Your task to perform on an android device: Add razer naga to the cart on costco.com Image 0: 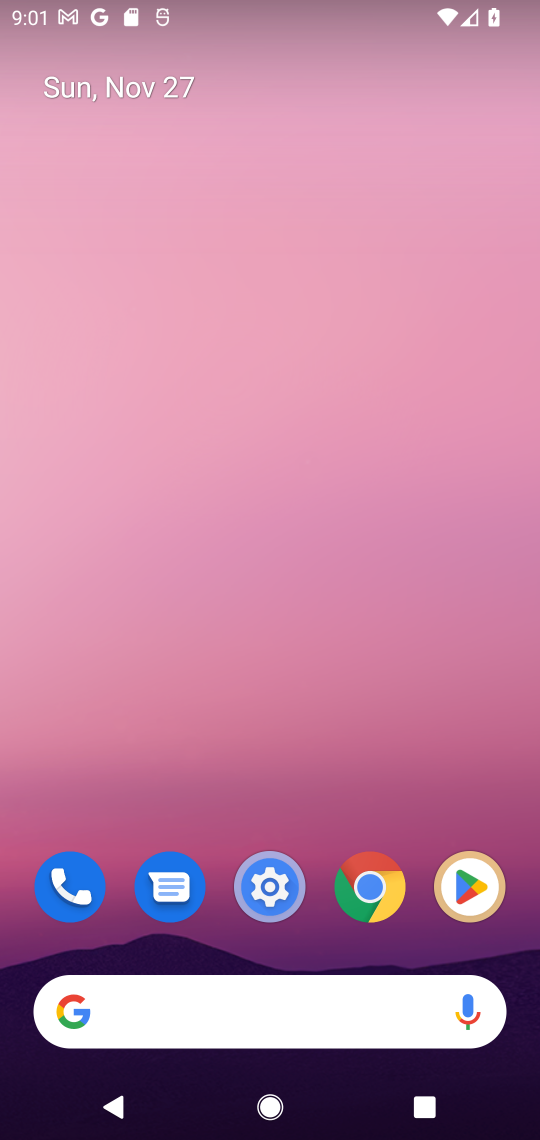
Step 0: click (214, 1007)
Your task to perform on an android device: Add razer naga to the cart on costco.com Image 1: 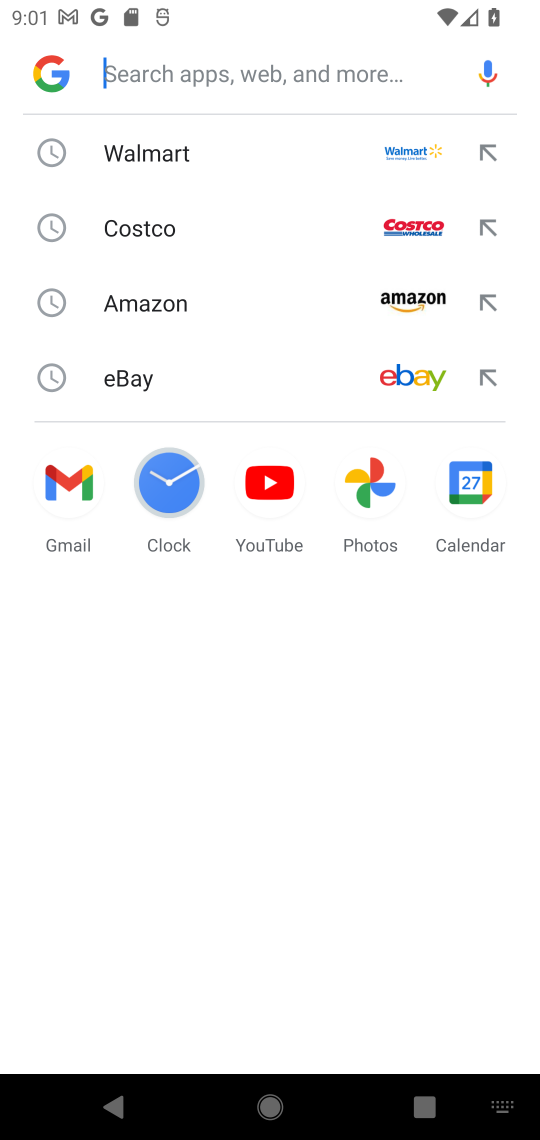
Step 1: type "costco.com"
Your task to perform on an android device: Add razer naga to the cart on costco.com Image 2: 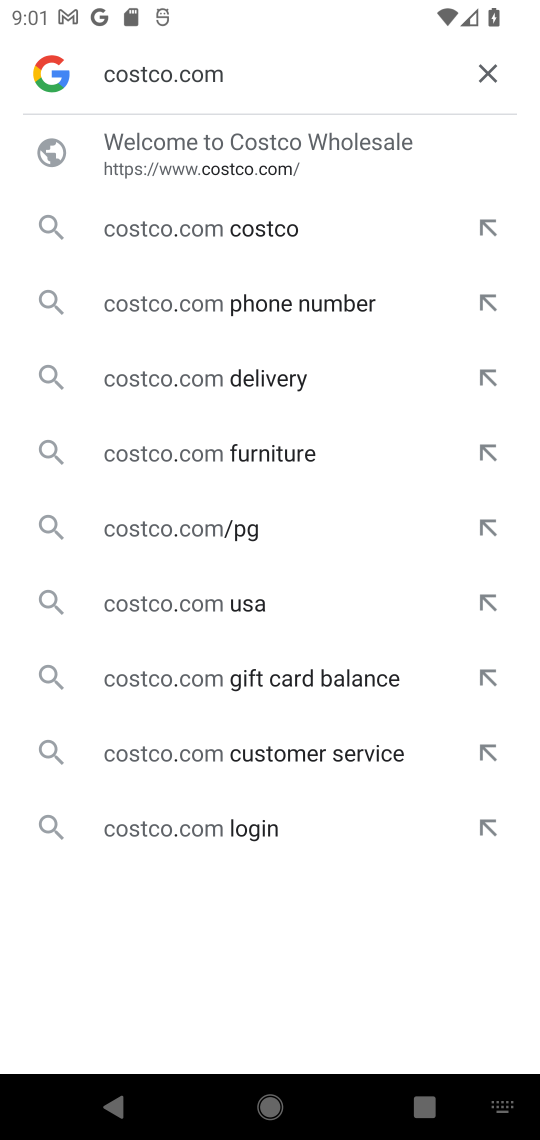
Step 2: click (187, 175)
Your task to perform on an android device: Add razer naga to the cart on costco.com Image 3: 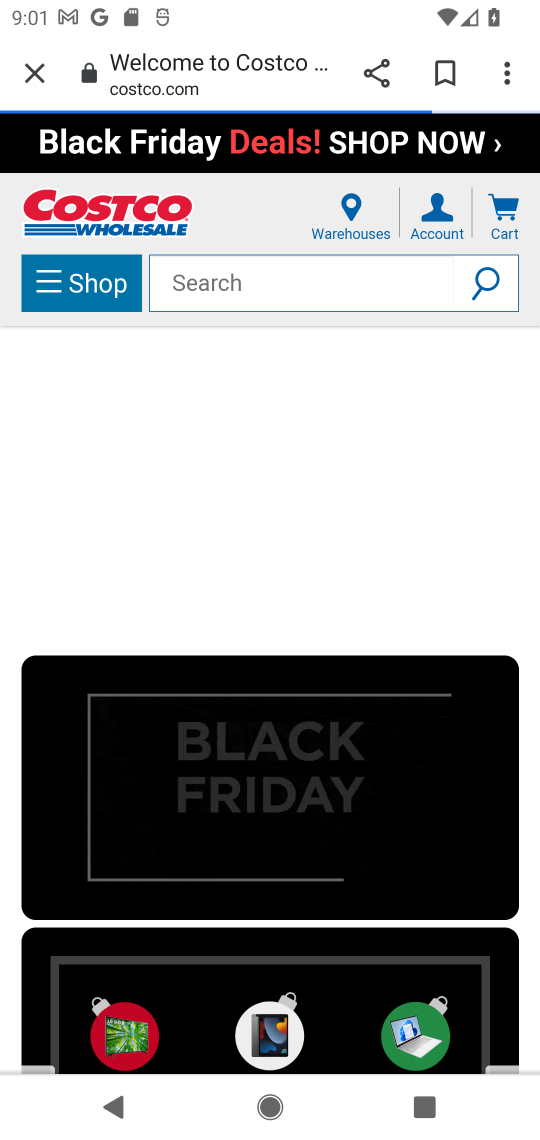
Step 3: click (327, 282)
Your task to perform on an android device: Add razer naga to the cart on costco.com Image 4: 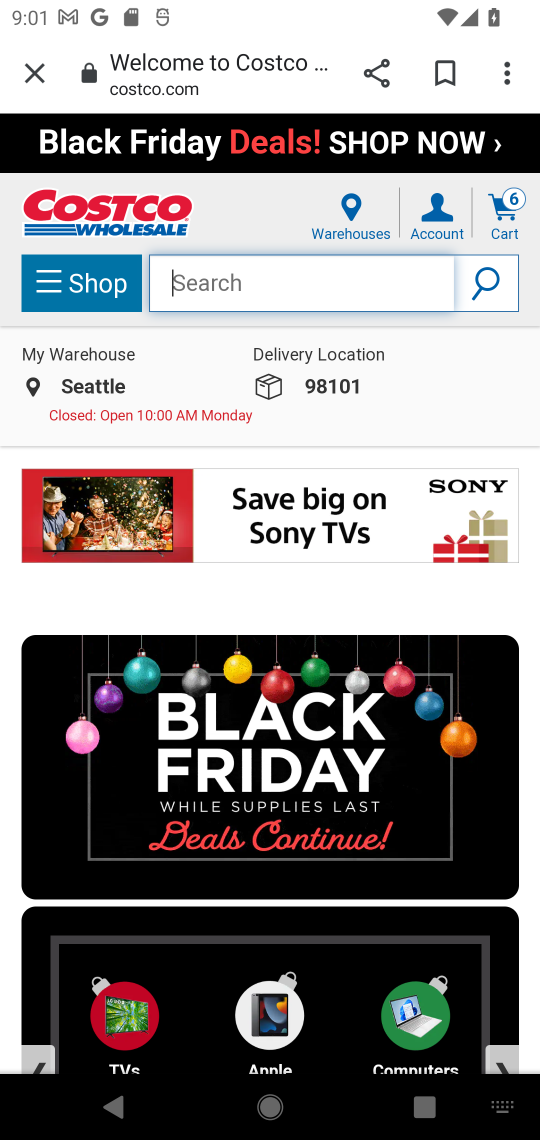
Step 4: type "razer naga"
Your task to perform on an android device: Add razer naga to the cart on costco.com Image 5: 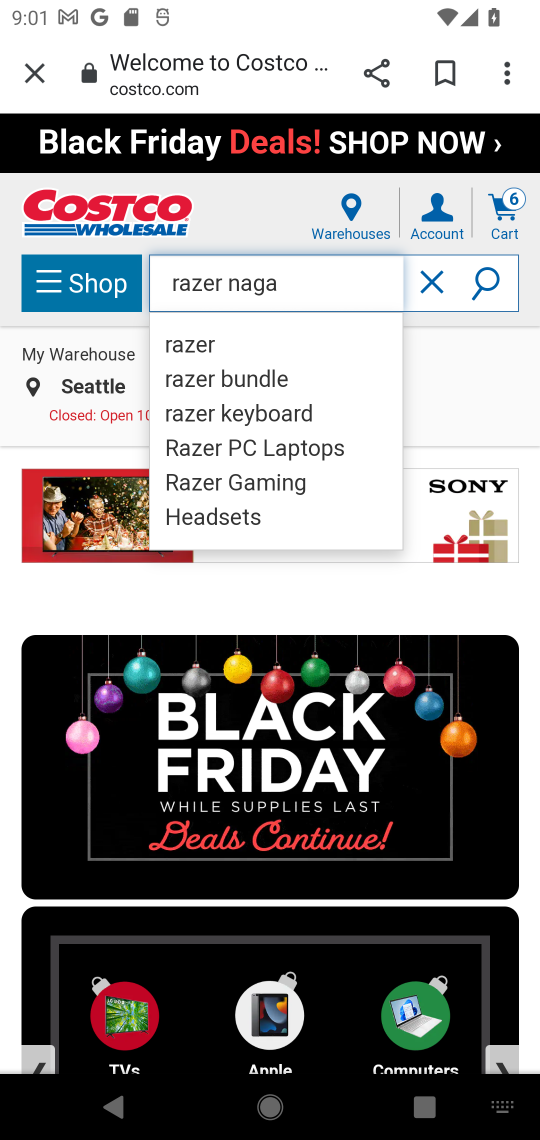
Step 5: click (485, 285)
Your task to perform on an android device: Add razer naga to the cart on costco.com Image 6: 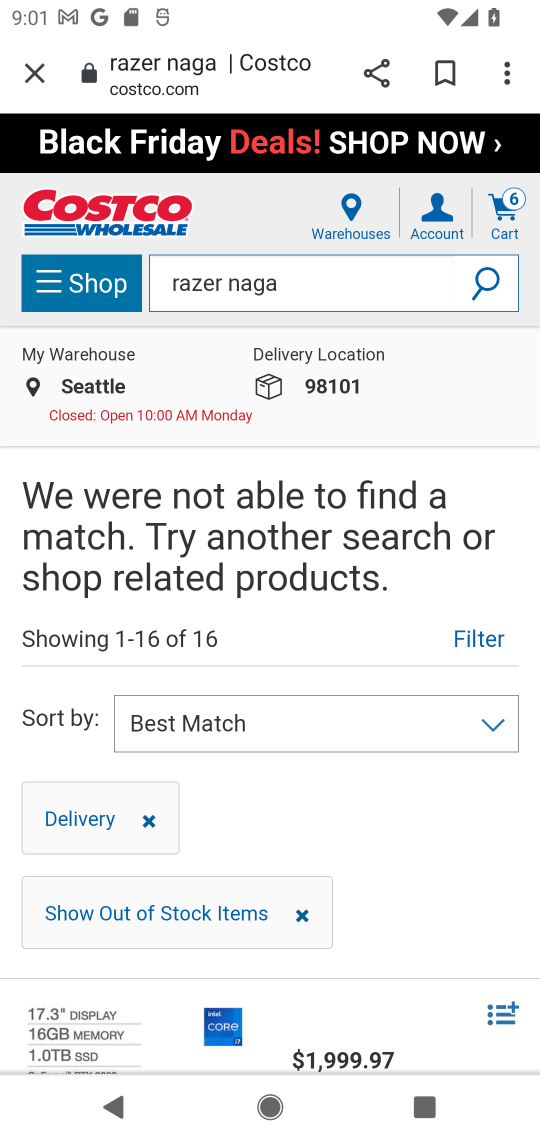
Step 6: task complete